Your task to perform on an android device: install app "LinkedIn" Image 0: 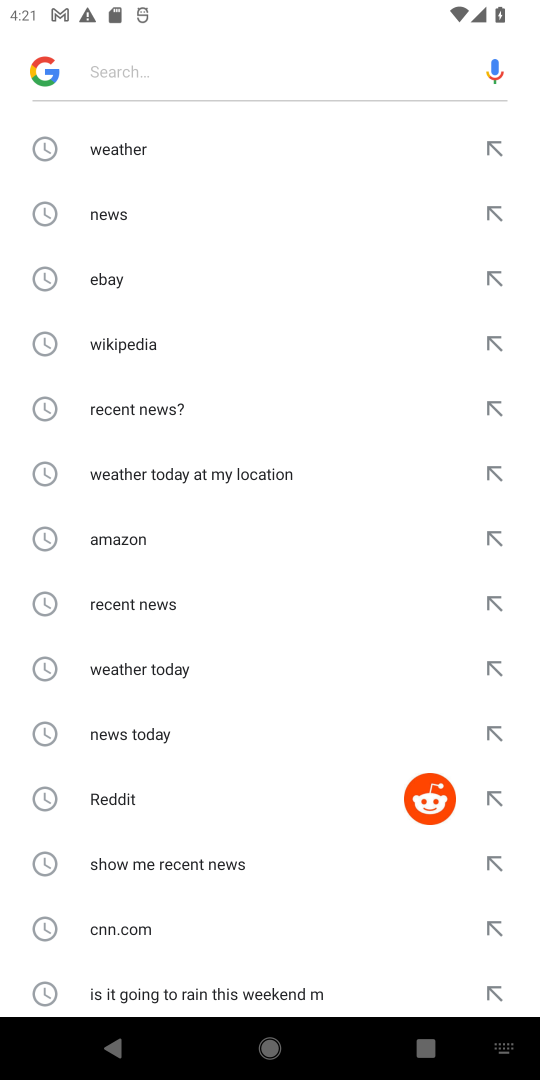
Step 0: press home button
Your task to perform on an android device: install app "LinkedIn" Image 1: 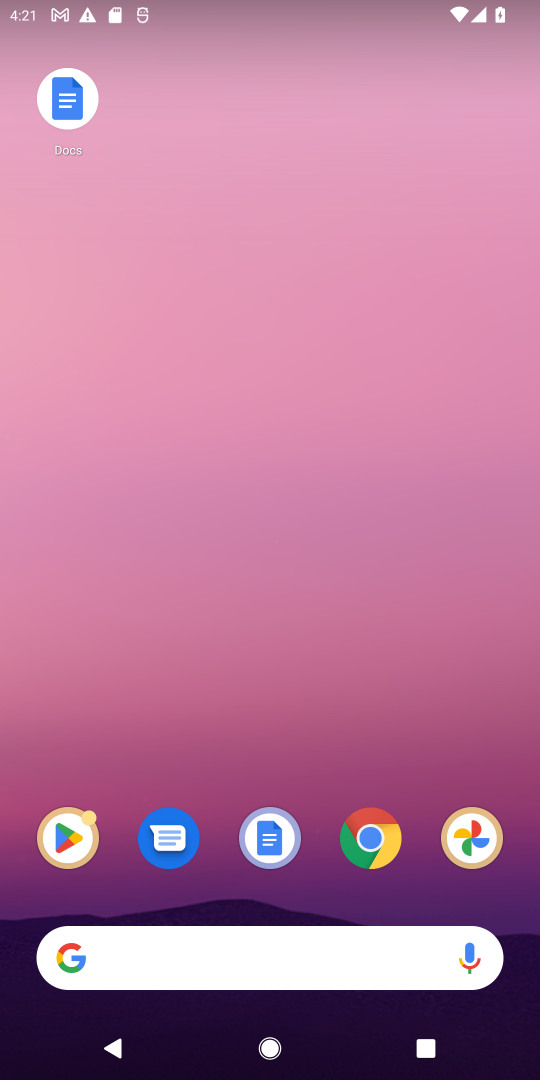
Step 1: drag from (279, 762) to (156, 5)
Your task to perform on an android device: install app "LinkedIn" Image 2: 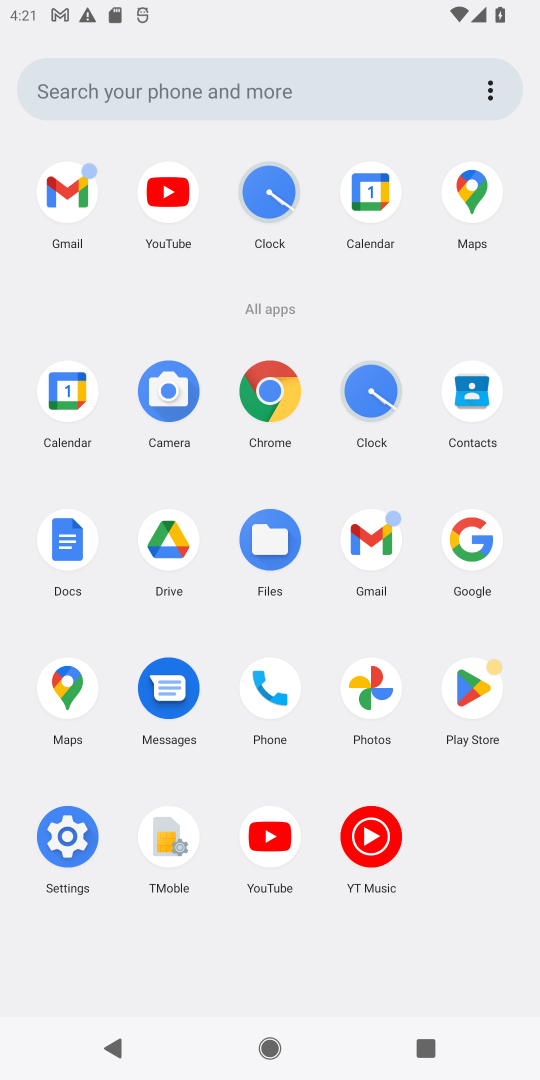
Step 2: click (484, 681)
Your task to perform on an android device: install app "LinkedIn" Image 3: 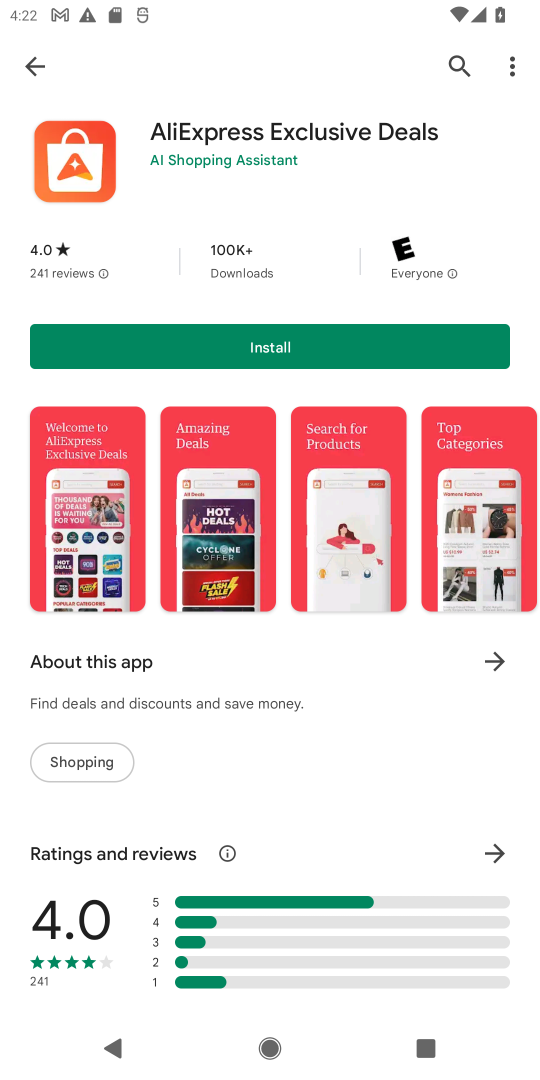
Step 3: click (451, 63)
Your task to perform on an android device: install app "LinkedIn" Image 4: 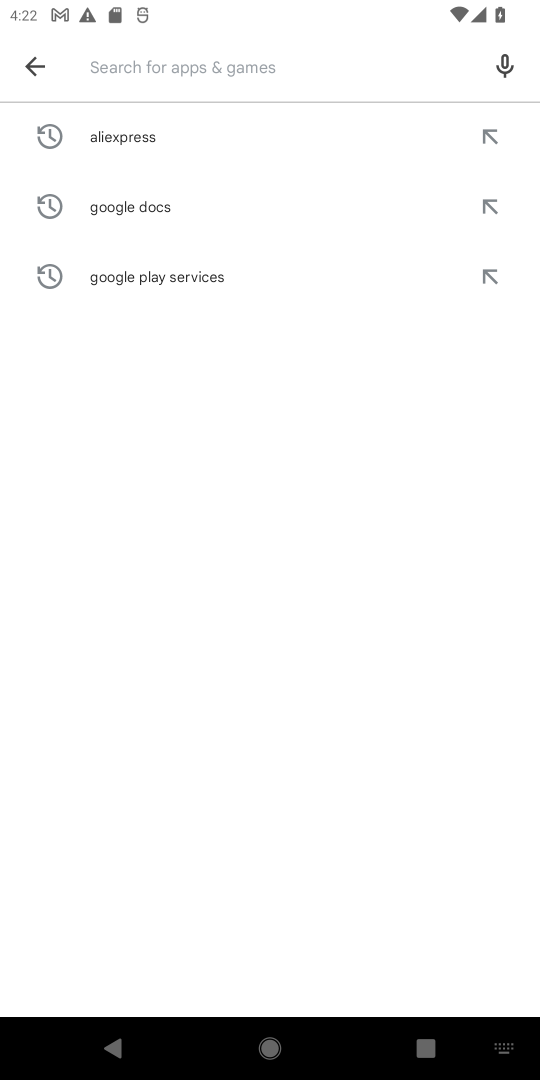
Step 4: type "linkedin"
Your task to perform on an android device: install app "LinkedIn" Image 5: 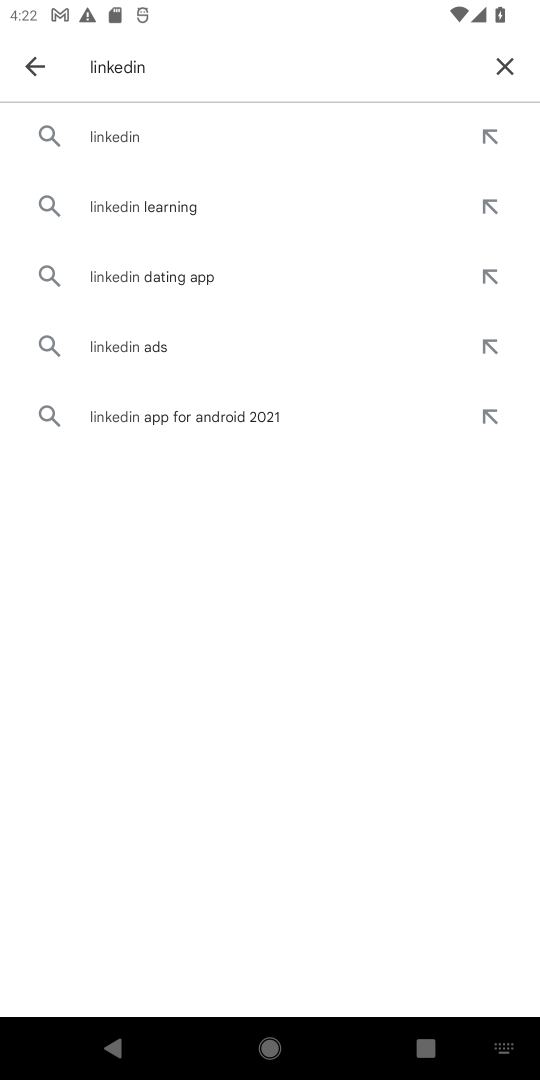
Step 5: click (152, 130)
Your task to perform on an android device: install app "LinkedIn" Image 6: 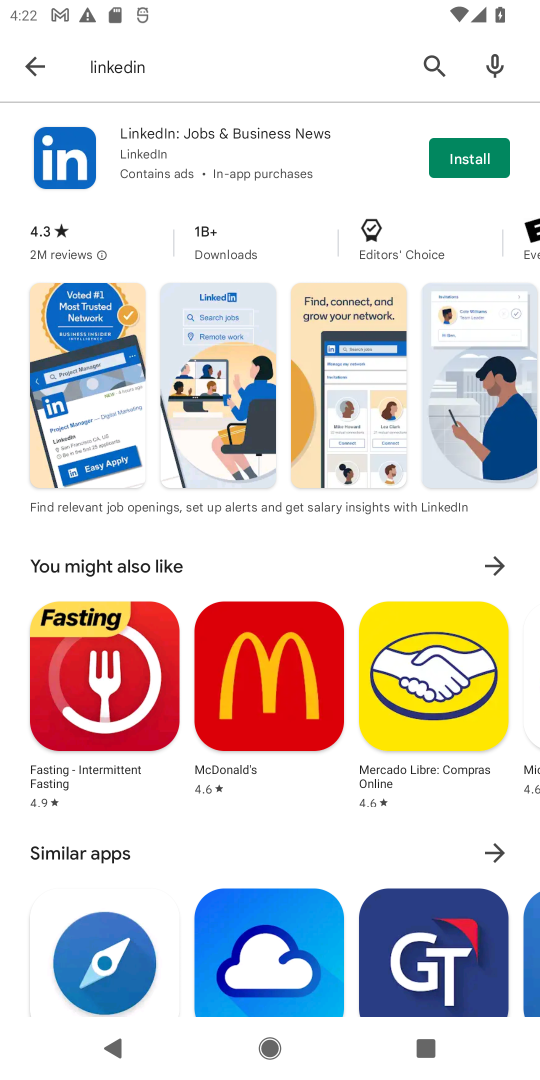
Step 6: click (447, 164)
Your task to perform on an android device: install app "LinkedIn" Image 7: 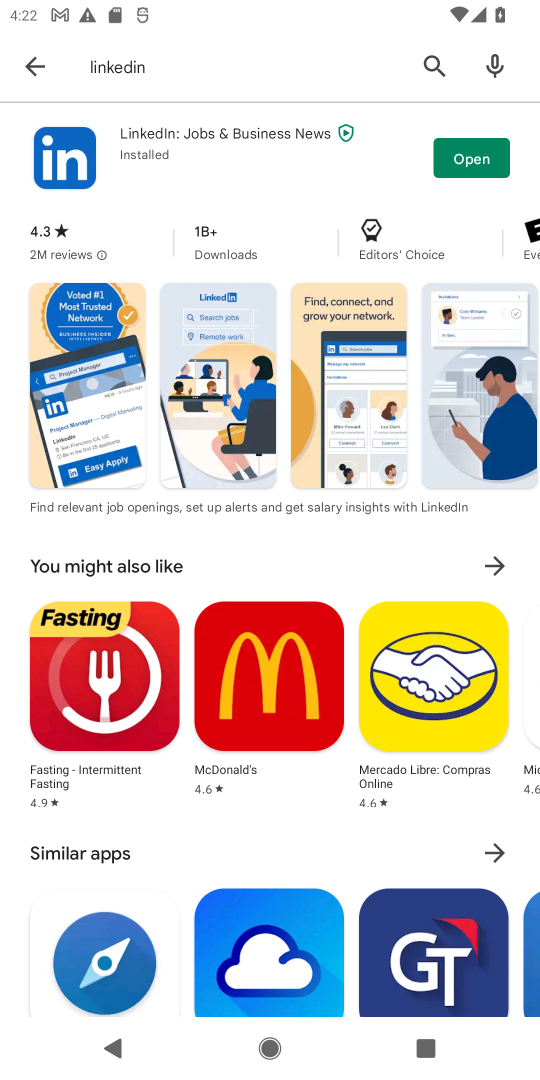
Step 7: task complete